Your task to perform on an android device: Open calendar and show me the first week of next month Image 0: 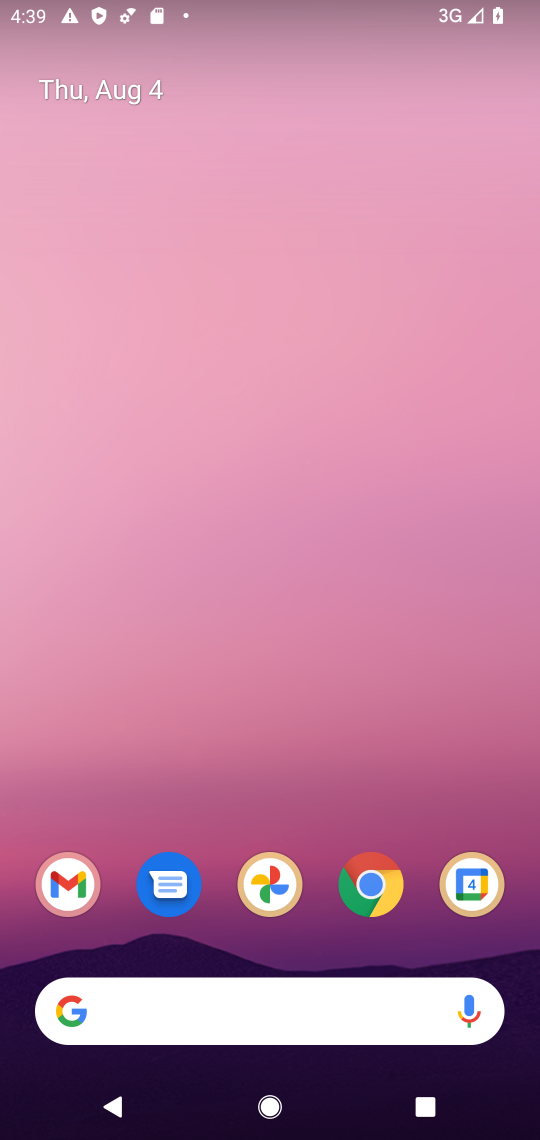
Step 0: click (468, 875)
Your task to perform on an android device: Open calendar and show me the first week of next month Image 1: 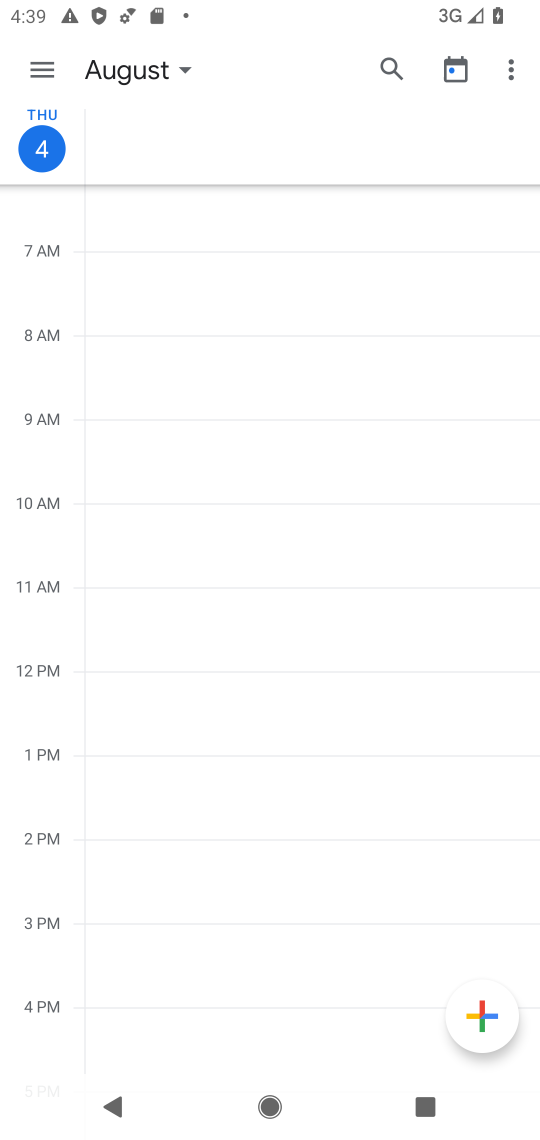
Step 1: click (35, 73)
Your task to perform on an android device: Open calendar and show me the first week of next month Image 2: 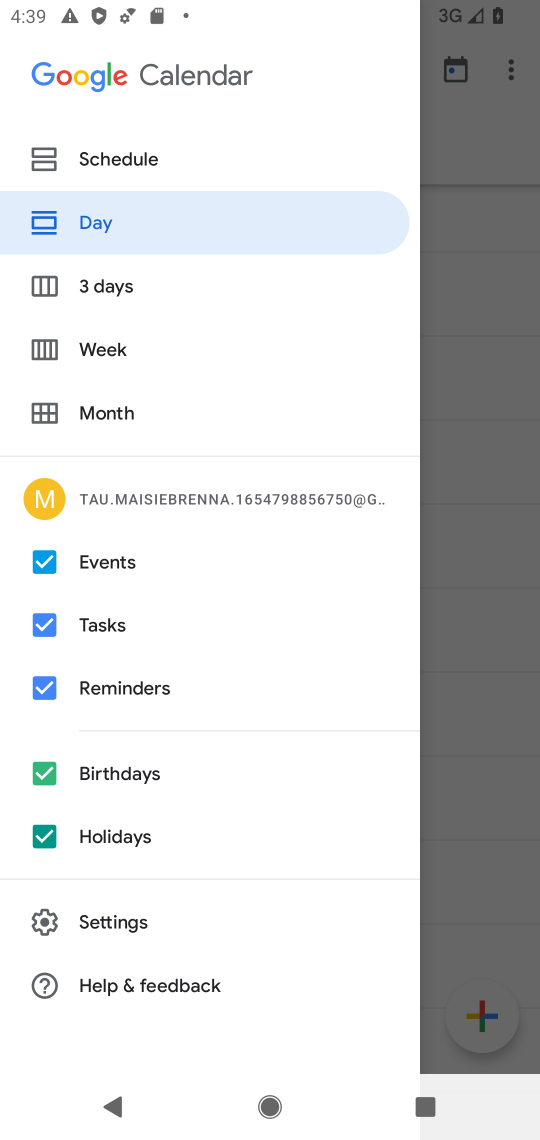
Step 2: click (145, 350)
Your task to perform on an android device: Open calendar and show me the first week of next month Image 3: 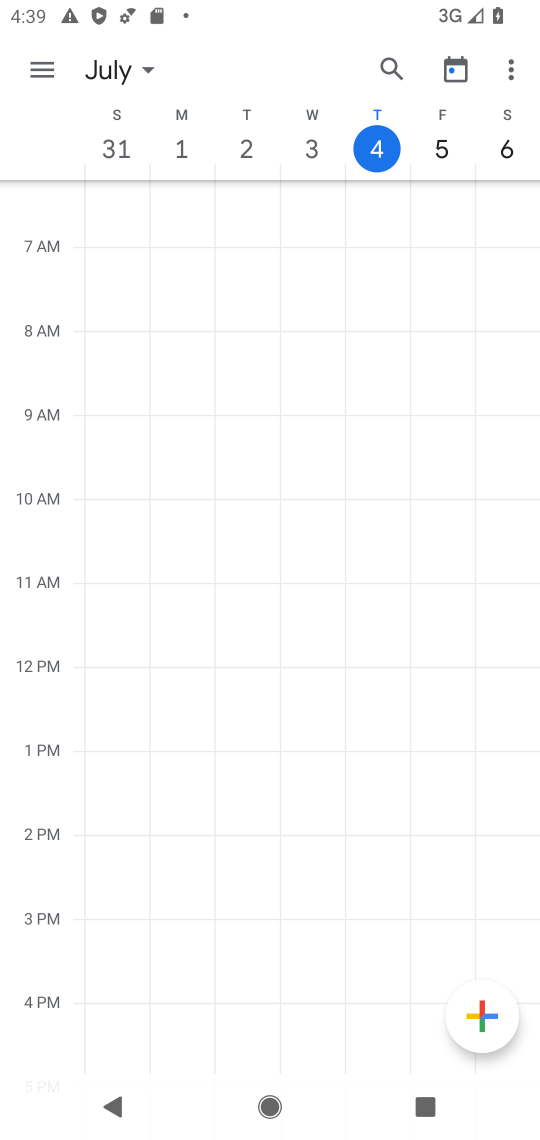
Step 3: click (89, 59)
Your task to perform on an android device: Open calendar and show me the first week of next month Image 4: 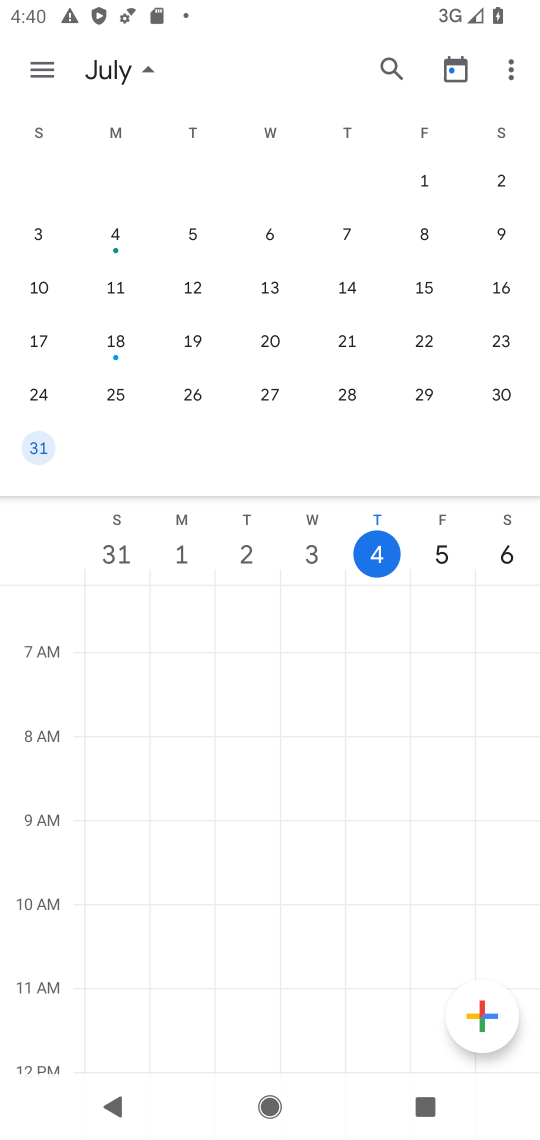
Step 4: drag from (504, 280) to (11, 314)
Your task to perform on an android device: Open calendar and show me the first week of next month Image 5: 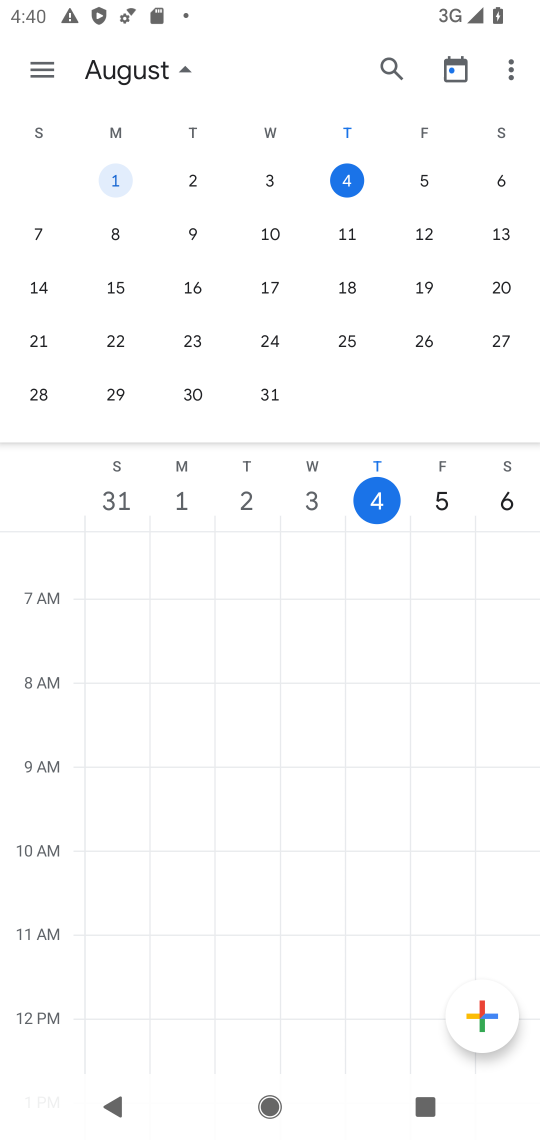
Step 5: click (262, 230)
Your task to perform on an android device: Open calendar and show me the first week of next month Image 6: 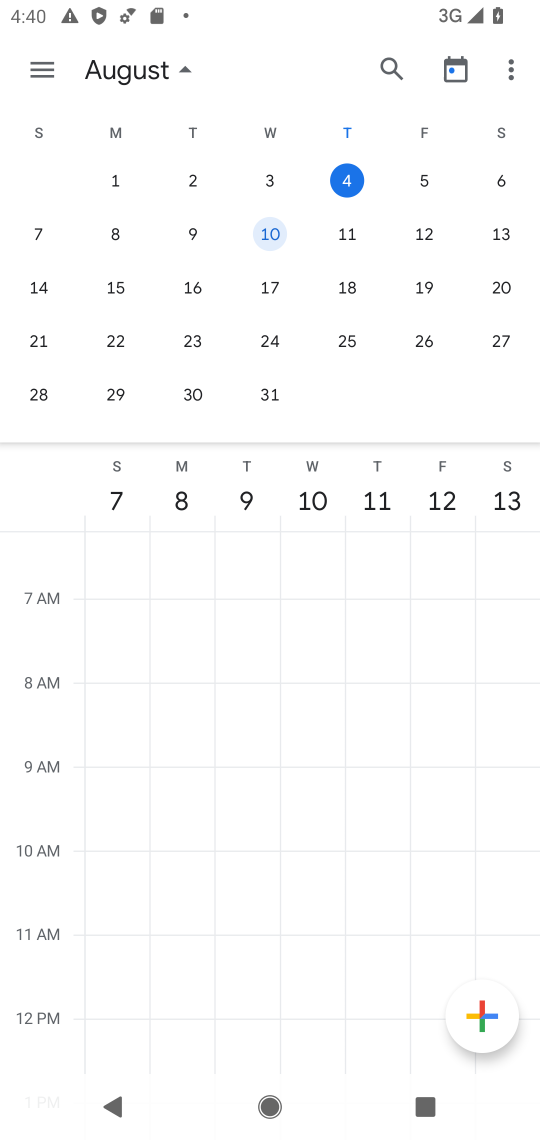
Step 6: task complete